Your task to perform on an android device: Open battery settings Image 0: 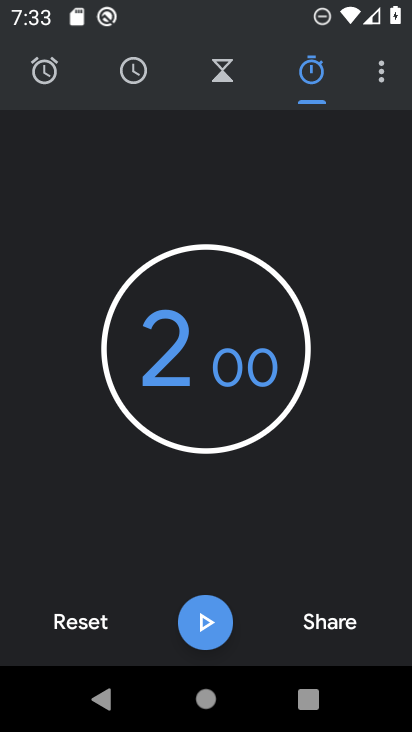
Step 0: press home button
Your task to perform on an android device: Open battery settings Image 1: 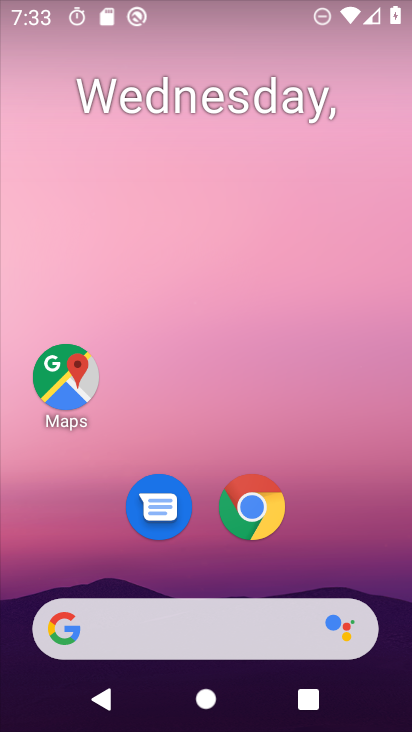
Step 1: drag from (280, 660) to (267, 187)
Your task to perform on an android device: Open battery settings Image 2: 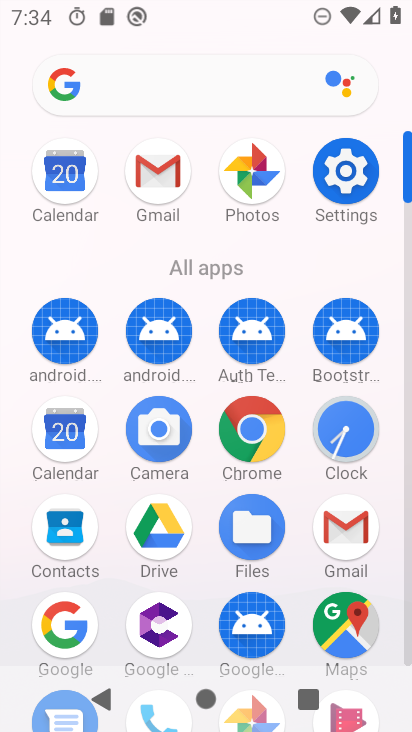
Step 2: click (346, 153)
Your task to perform on an android device: Open battery settings Image 3: 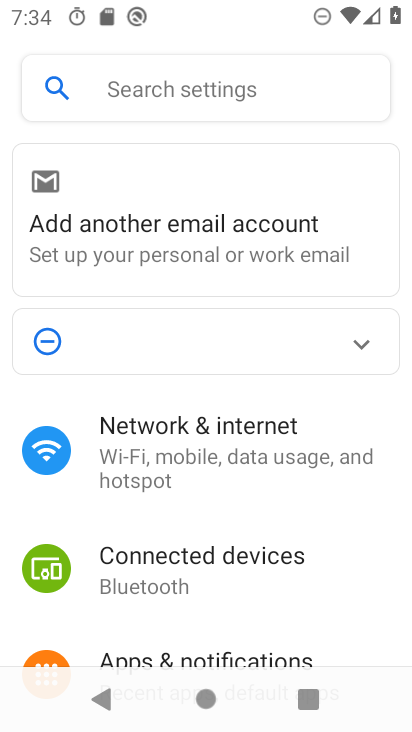
Step 3: click (220, 90)
Your task to perform on an android device: Open battery settings Image 4: 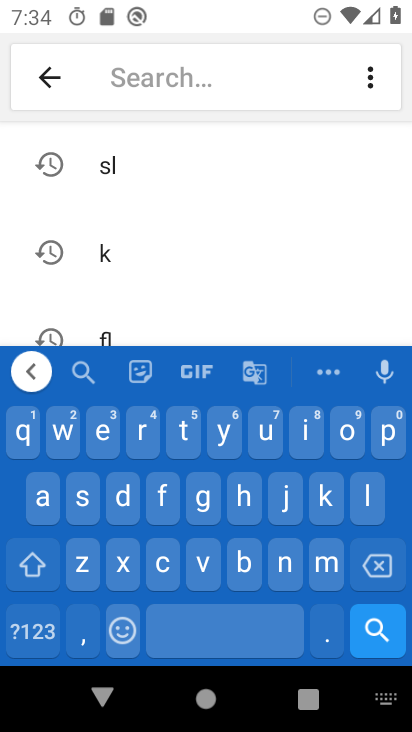
Step 4: click (247, 571)
Your task to perform on an android device: Open battery settings Image 5: 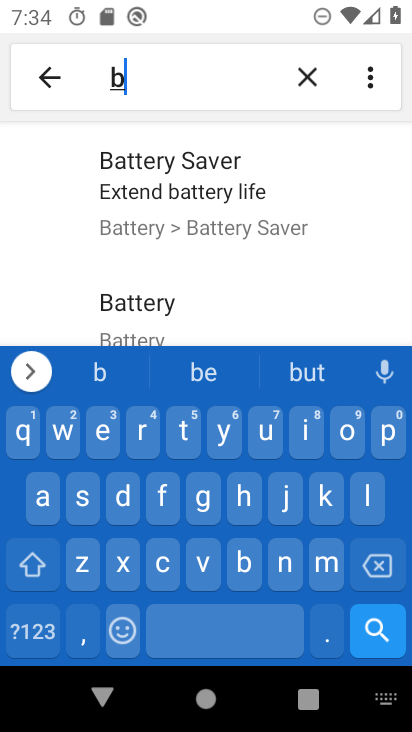
Step 5: click (185, 300)
Your task to perform on an android device: Open battery settings Image 6: 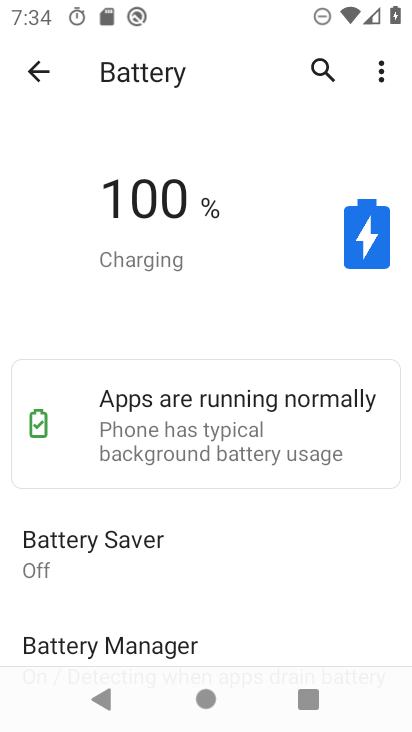
Step 6: task complete